Your task to perform on an android device: change the upload size in google photos Image 0: 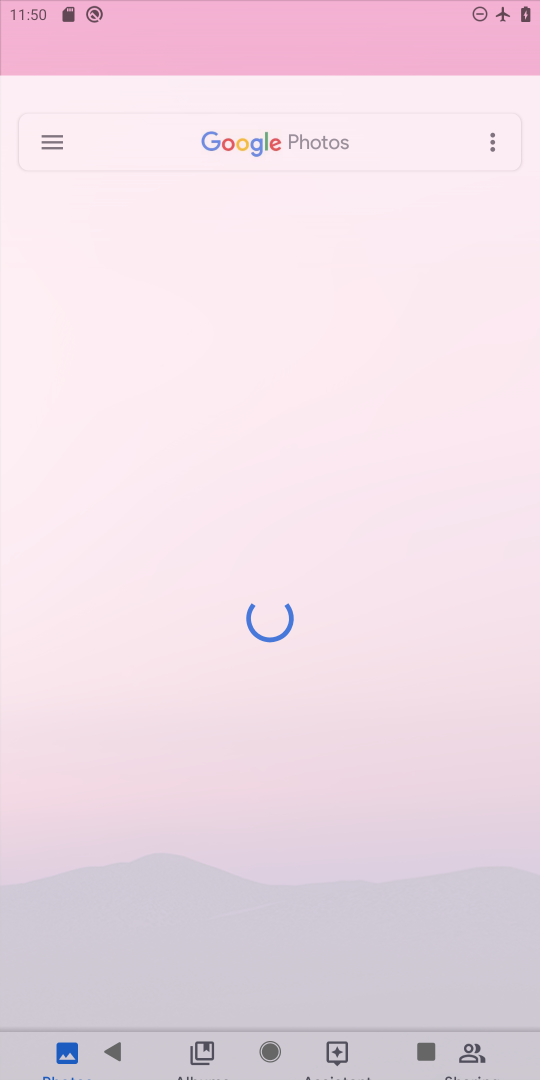
Step 0: press home button
Your task to perform on an android device: change the upload size in google photos Image 1: 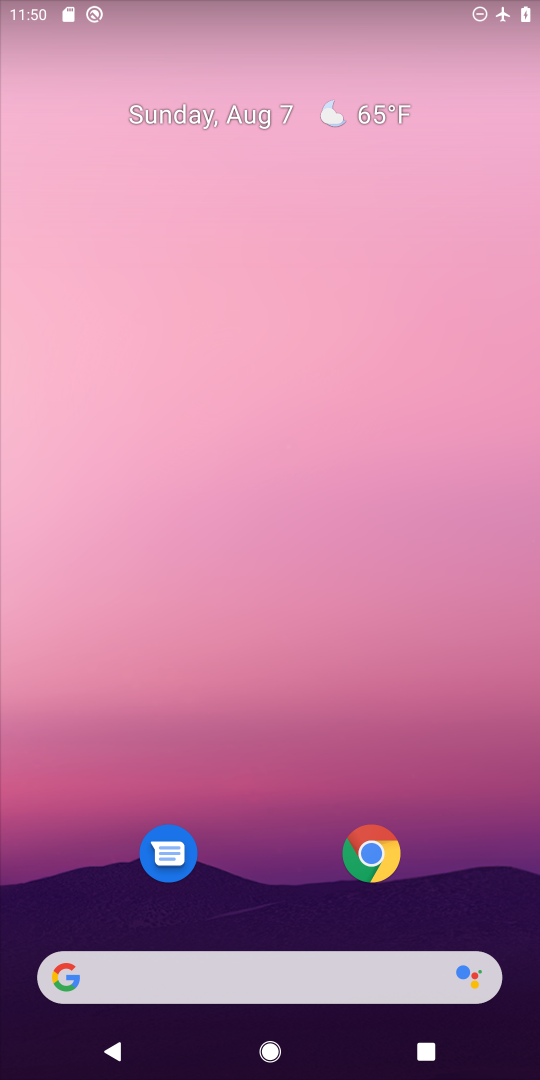
Step 1: drag from (220, 972) to (272, 118)
Your task to perform on an android device: change the upload size in google photos Image 2: 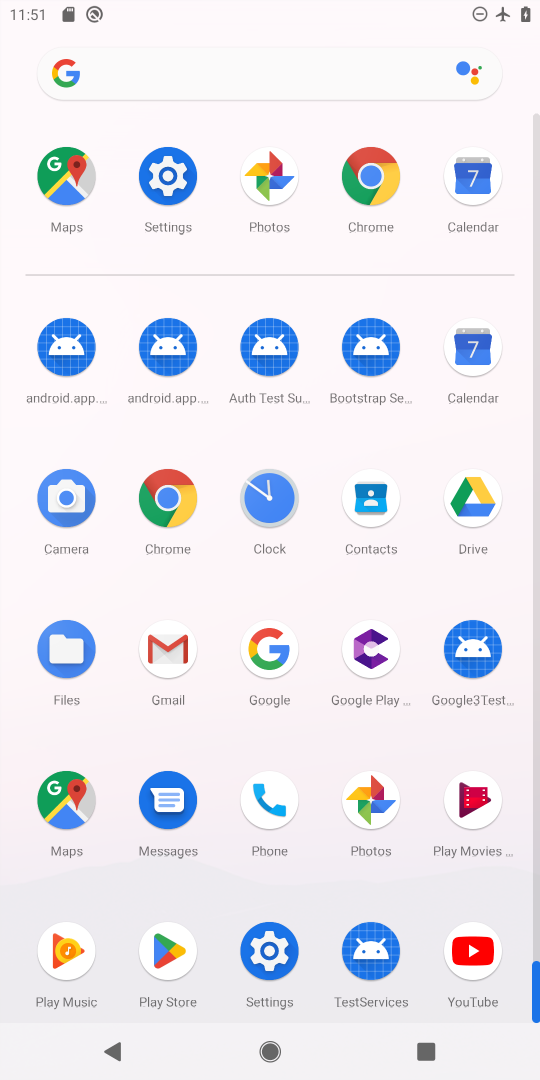
Step 2: click (365, 798)
Your task to perform on an android device: change the upload size in google photos Image 3: 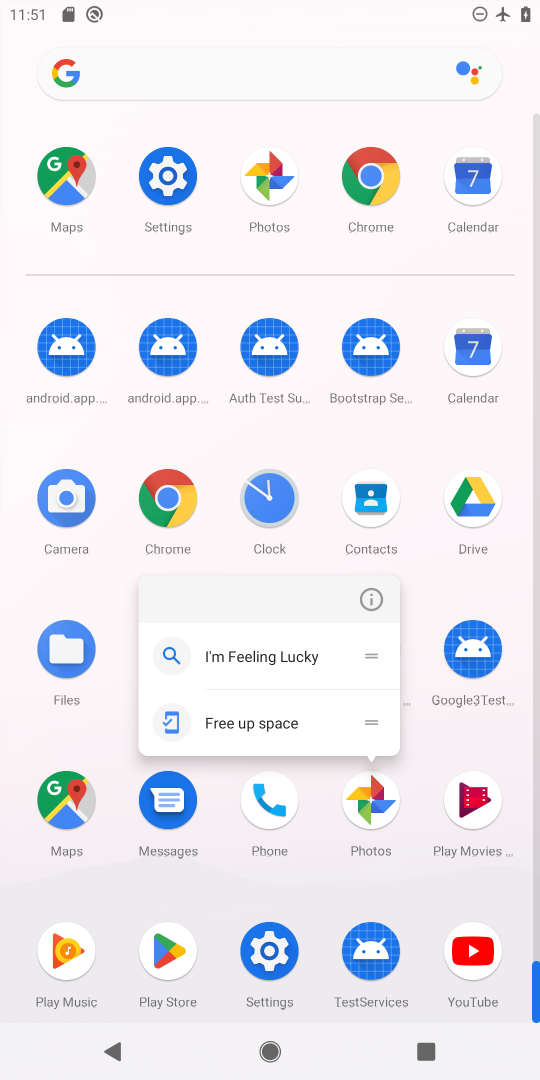
Step 3: click (357, 798)
Your task to perform on an android device: change the upload size in google photos Image 4: 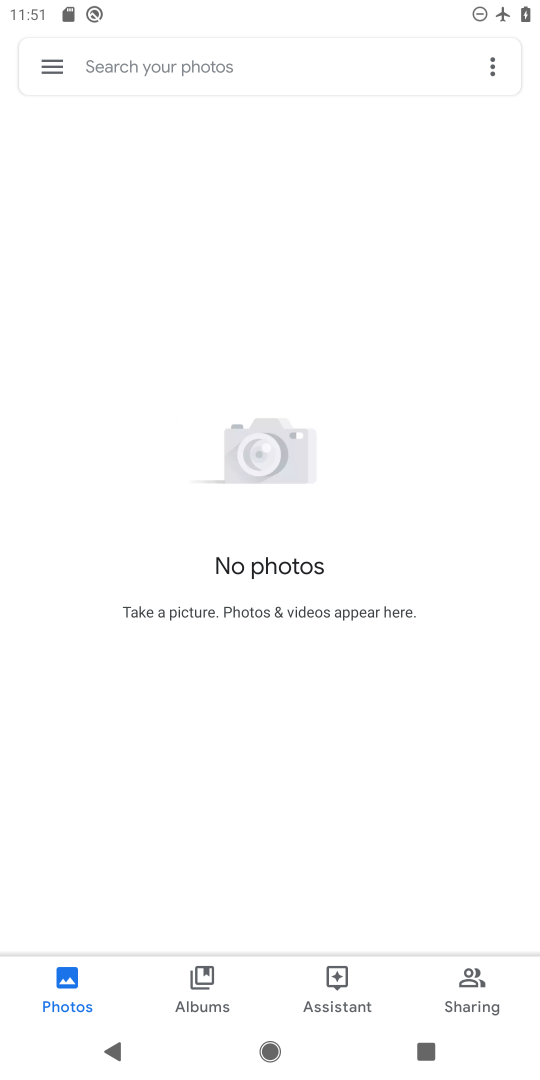
Step 4: click (50, 61)
Your task to perform on an android device: change the upload size in google photos Image 5: 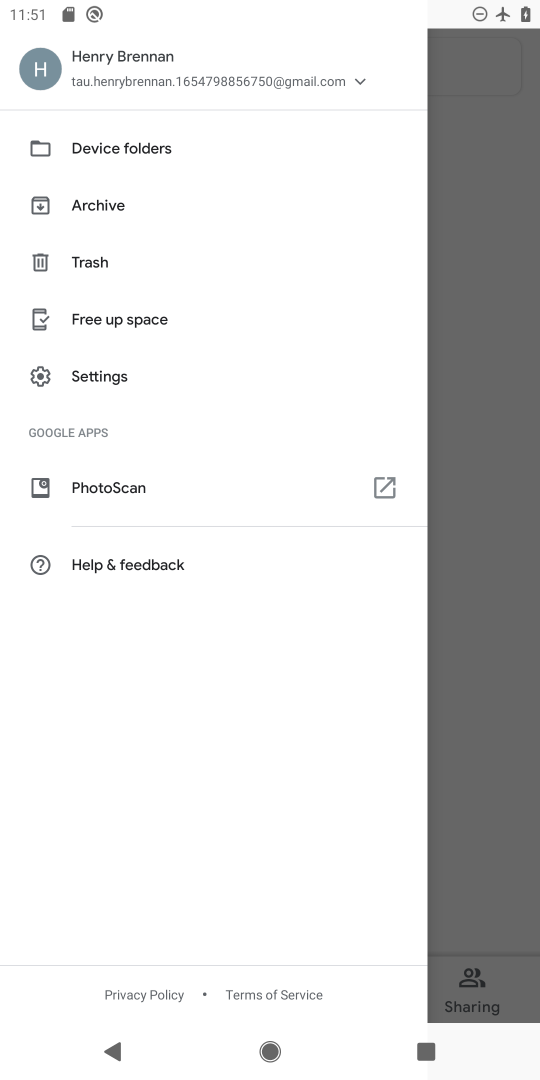
Step 5: click (151, 379)
Your task to perform on an android device: change the upload size in google photos Image 6: 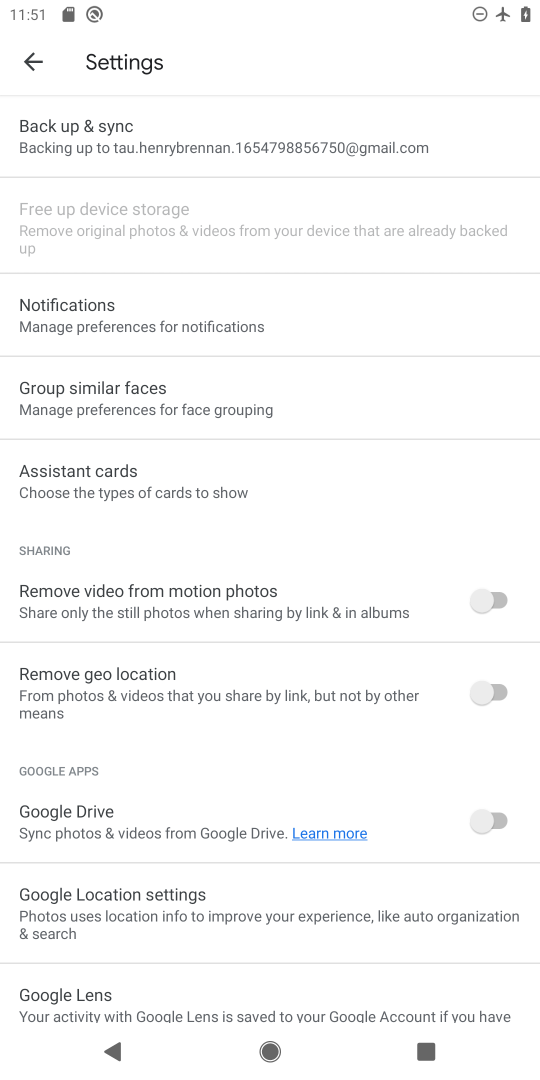
Step 6: click (119, 125)
Your task to perform on an android device: change the upload size in google photos Image 7: 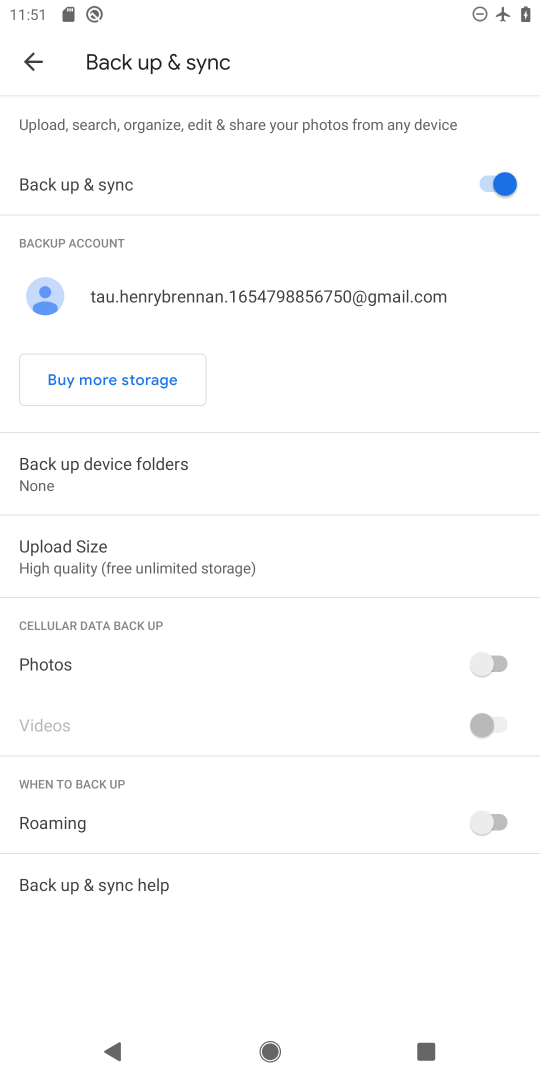
Step 7: click (146, 584)
Your task to perform on an android device: change the upload size in google photos Image 8: 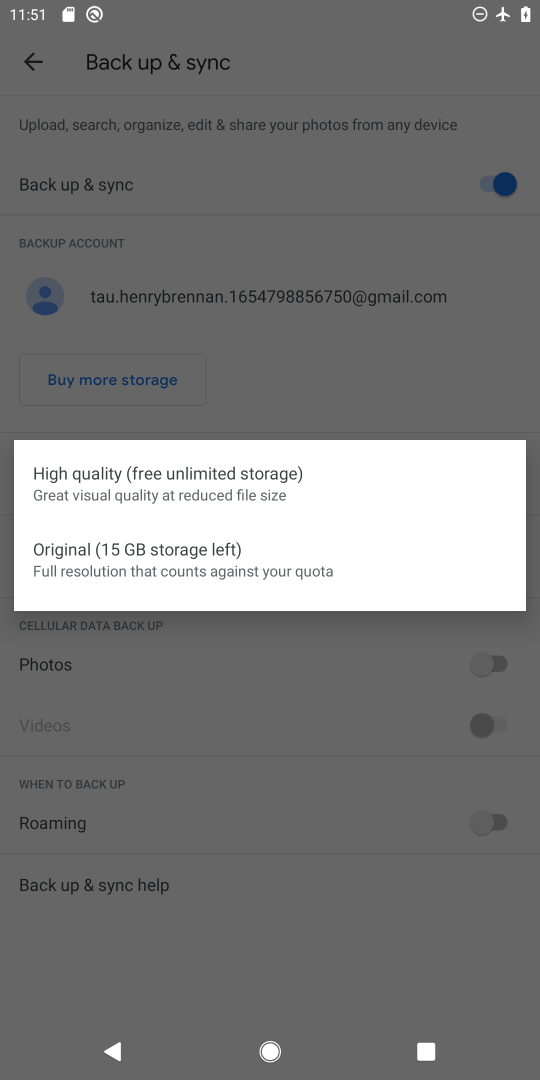
Step 8: click (140, 565)
Your task to perform on an android device: change the upload size in google photos Image 9: 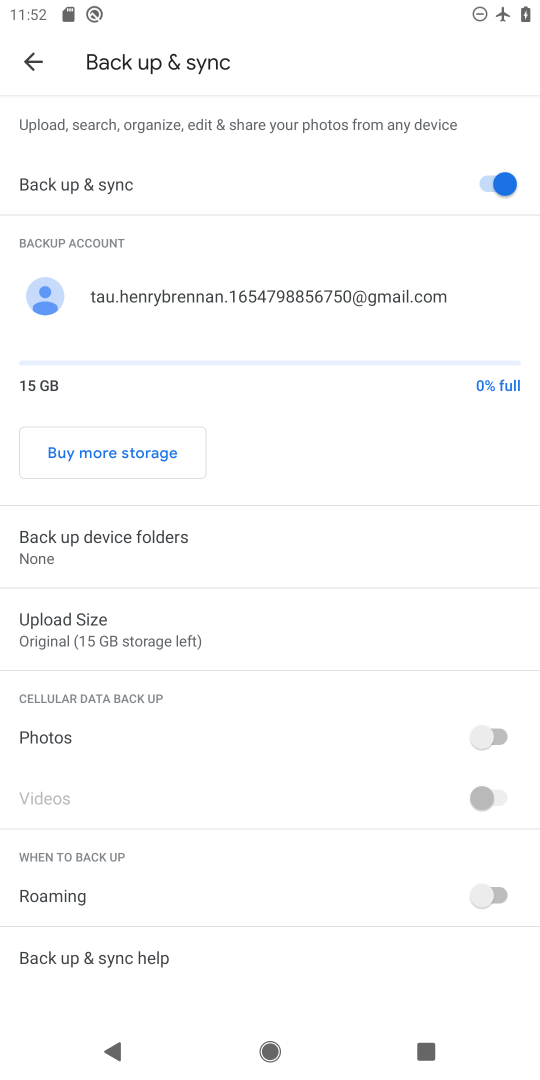
Step 9: task complete